Your task to perform on an android device: Search for razer naga on ebay, select the first entry, add it to the cart, then select checkout. Image 0: 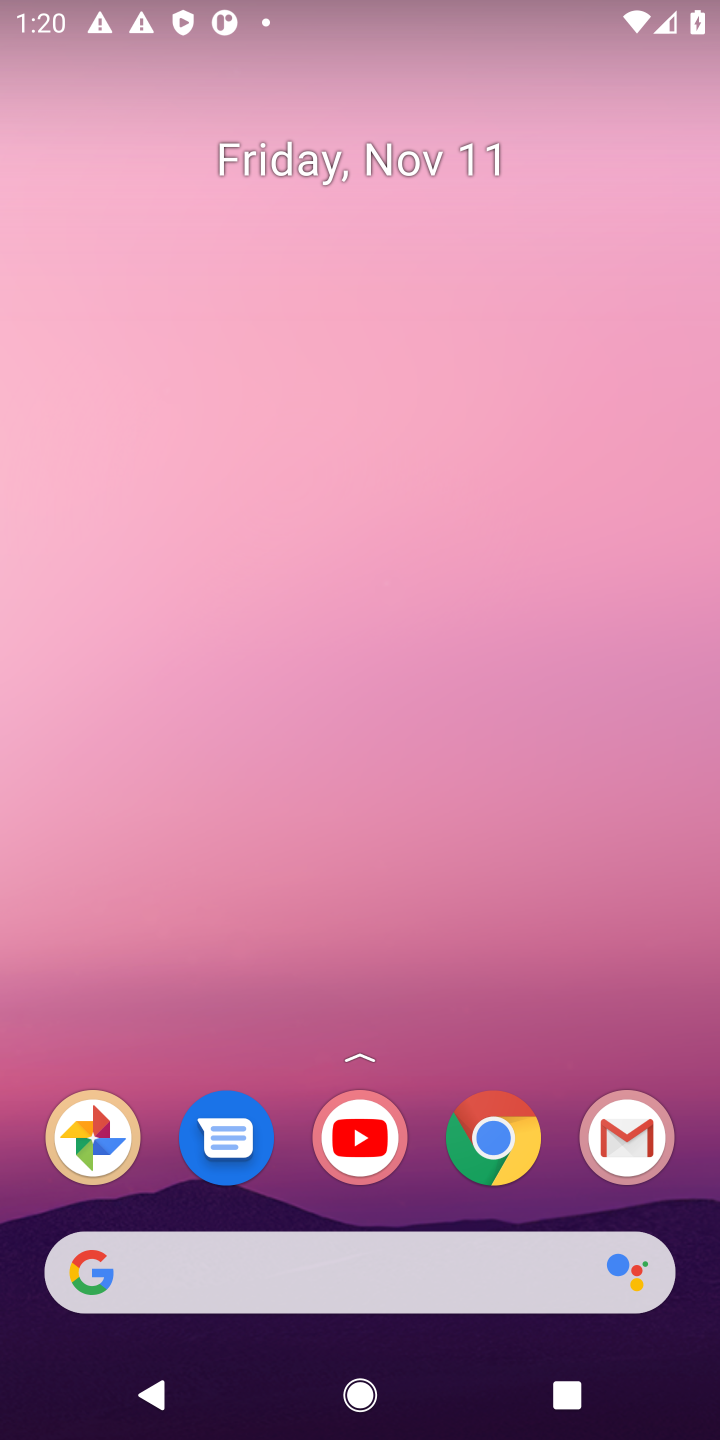
Step 0: click (488, 1116)
Your task to perform on an android device: Search for razer naga on ebay, select the first entry, add it to the cart, then select checkout. Image 1: 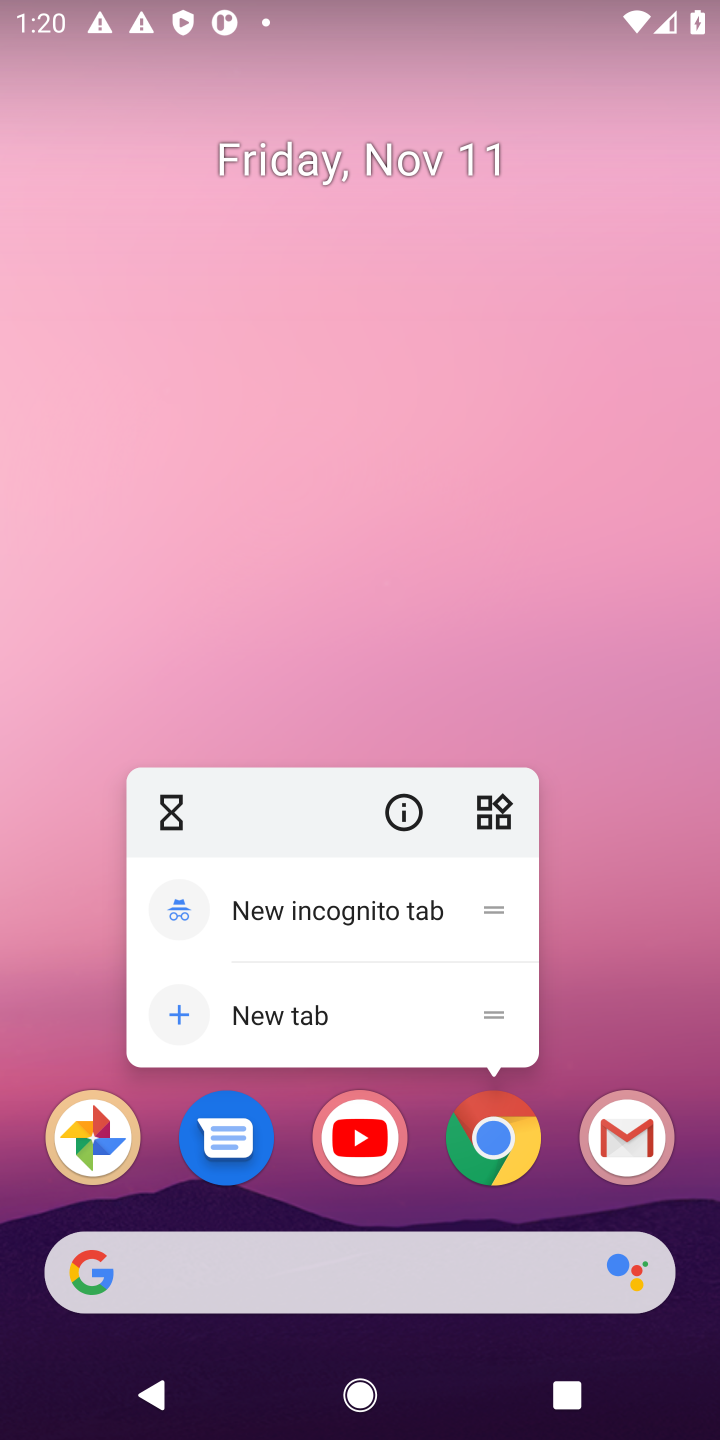
Step 1: click (484, 1144)
Your task to perform on an android device: Search for razer naga on ebay, select the first entry, add it to the cart, then select checkout. Image 2: 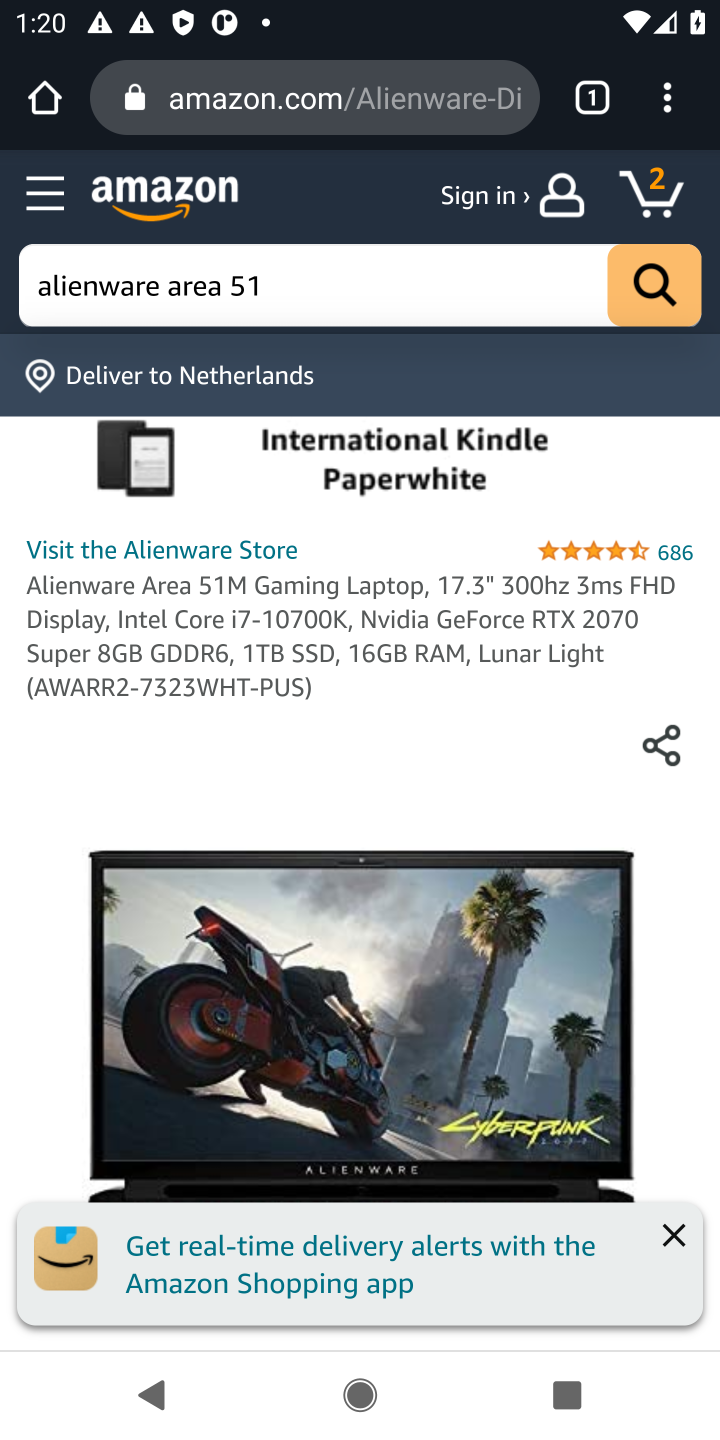
Step 2: click (603, 97)
Your task to perform on an android device: Search for razer naga on ebay, select the first entry, add it to the cart, then select checkout. Image 3: 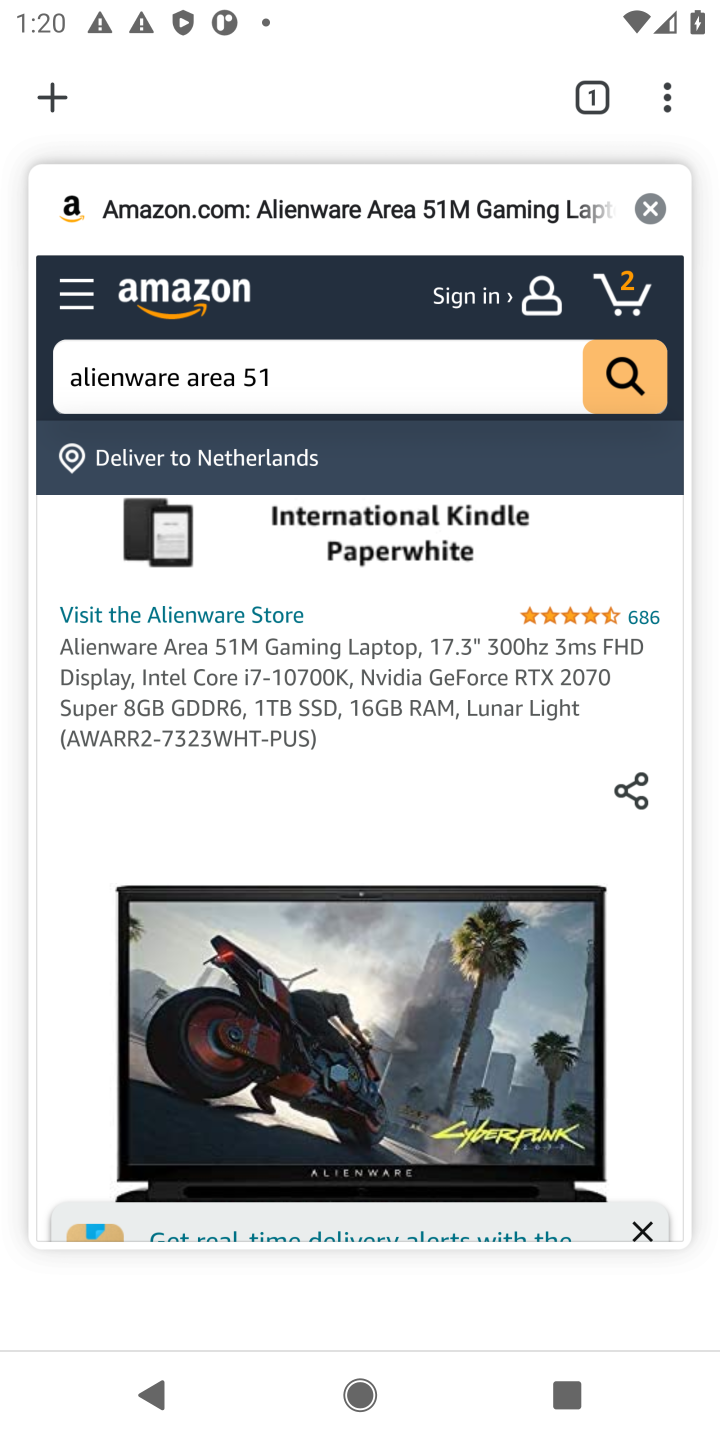
Step 3: click (48, 105)
Your task to perform on an android device: Search for razer naga on ebay, select the first entry, add it to the cart, then select checkout. Image 4: 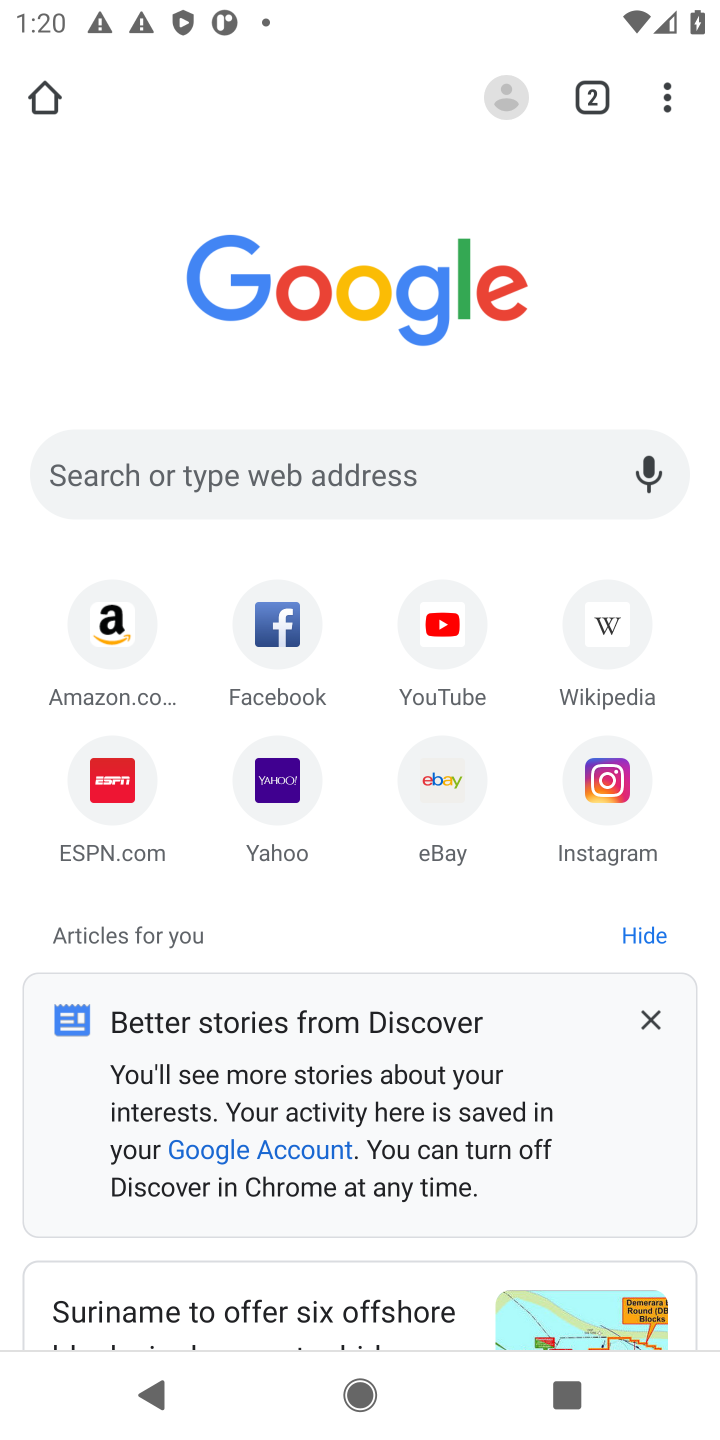
Step 4: click (313, 488)
Your task to perform on an android device: Search for razer naga on ebay, select the first entry, add it to the cart, then select checkout. Image 5: 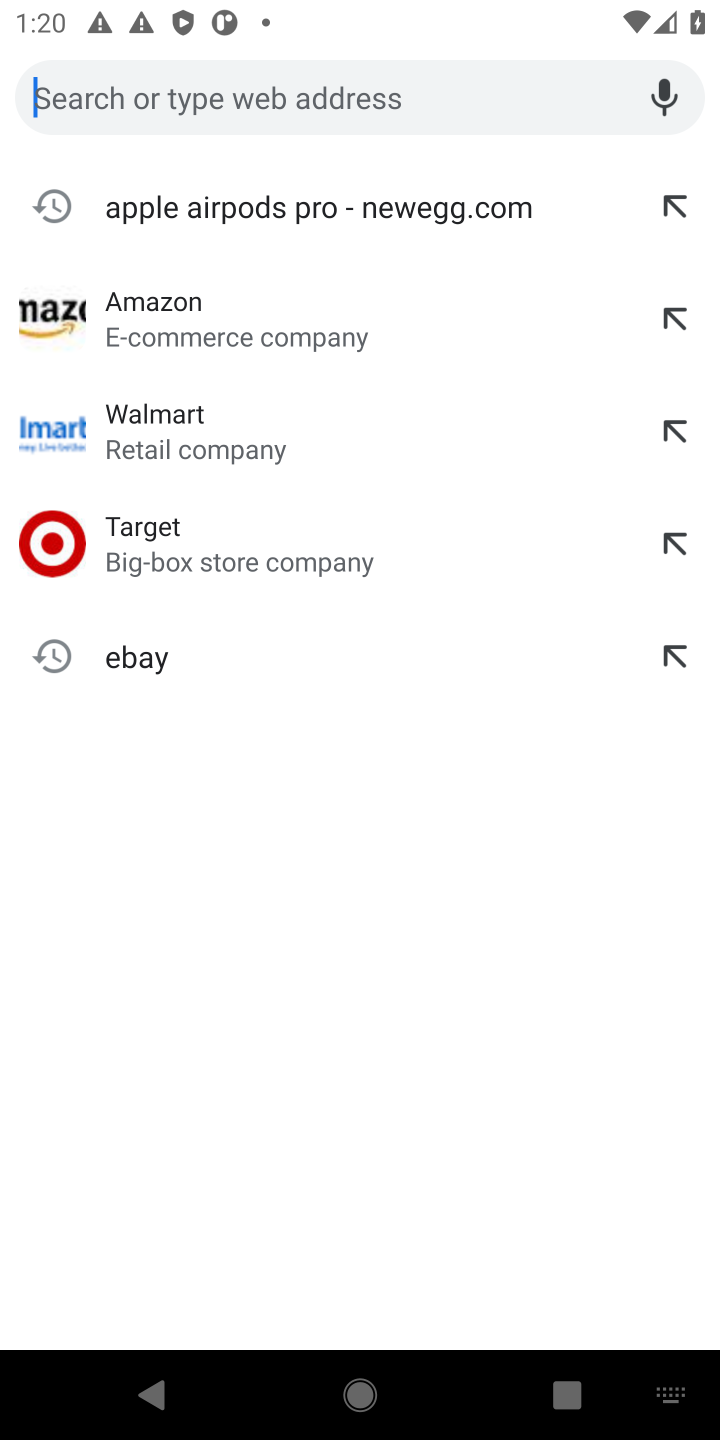
Step 5: type "razer naga on ebay"
Your task to perform on an android device: Search for razer naga on ebay, select the first entry, add it to the cart, then select checkout. Image 6: 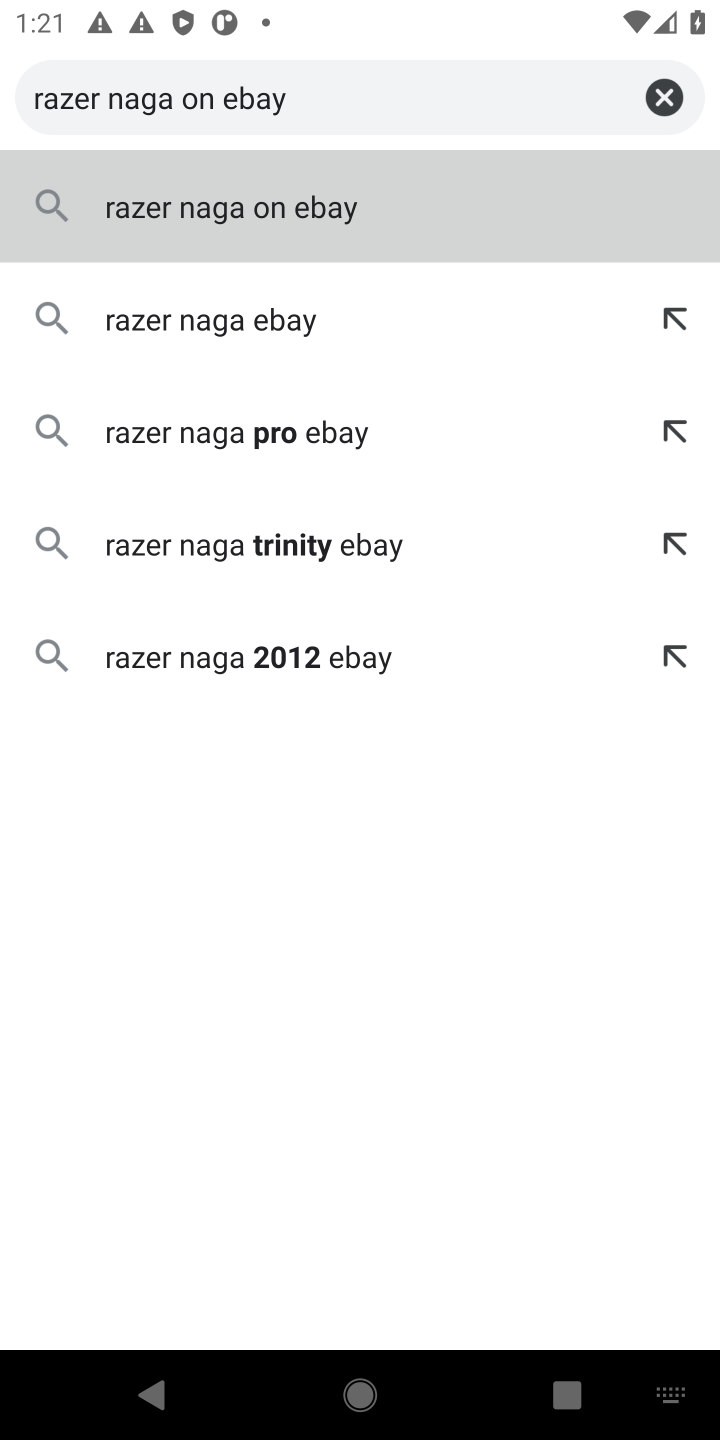
Step 6: click (254, 204)
Your task to perform on an android device: Search for razer naga on ebay, select the first entry, add it to the cart, then select checkout. Image 7: 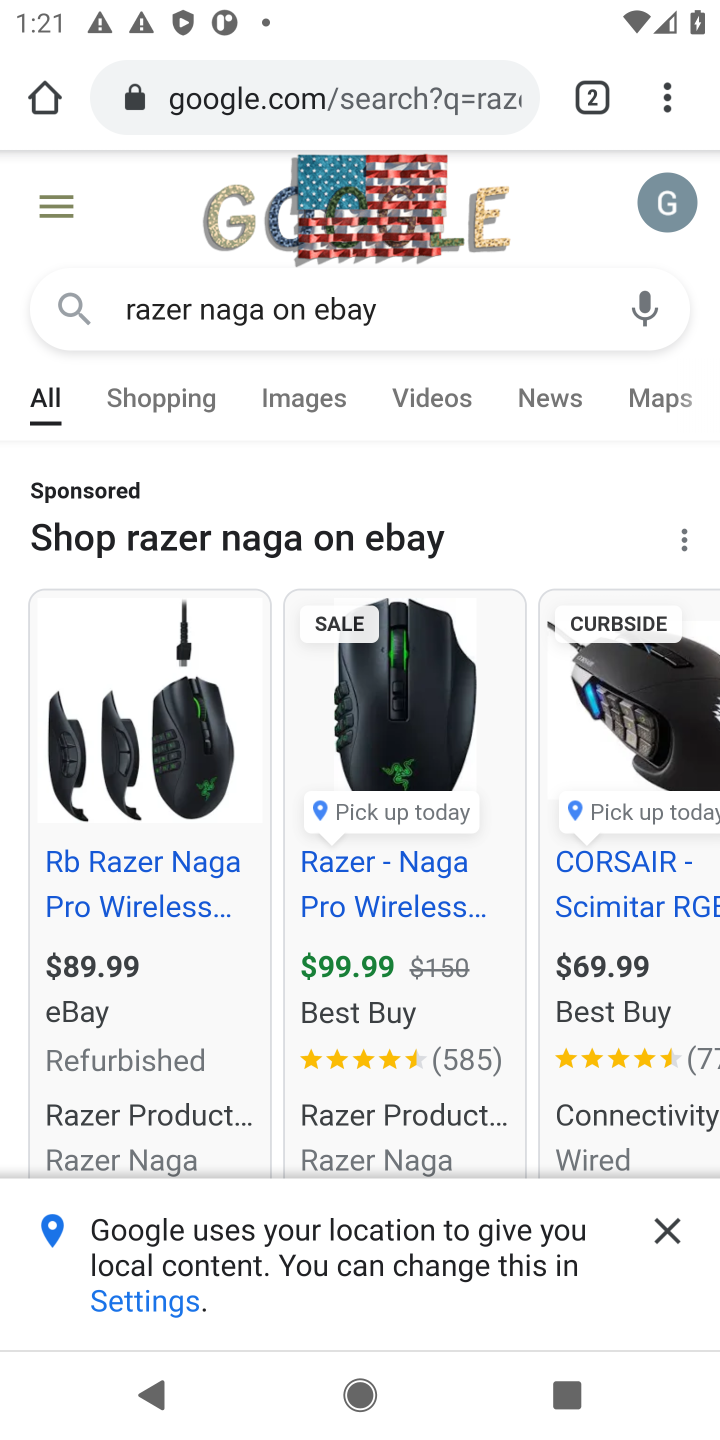
Step 7: click (131, 868)
Your task to perform on an android device: Search for razer naga on ebay, select the first entry, add it to the cart, then select checkout. Image 8: 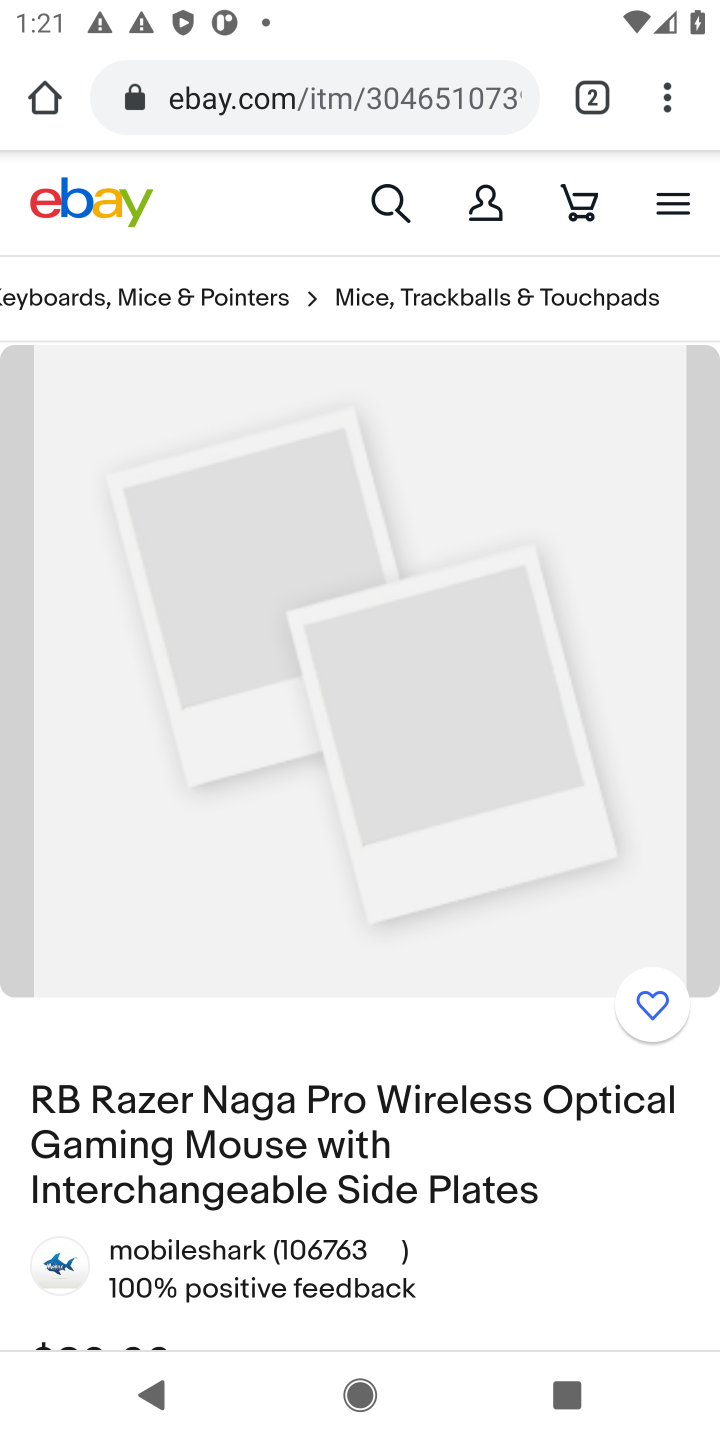
Step 8: drag from (534, 1253) to (538, 236)
Your task to perform on an android device: Search for razer naga on ebay, select the first entry, add it to the cart, then select checkout. Image 9: 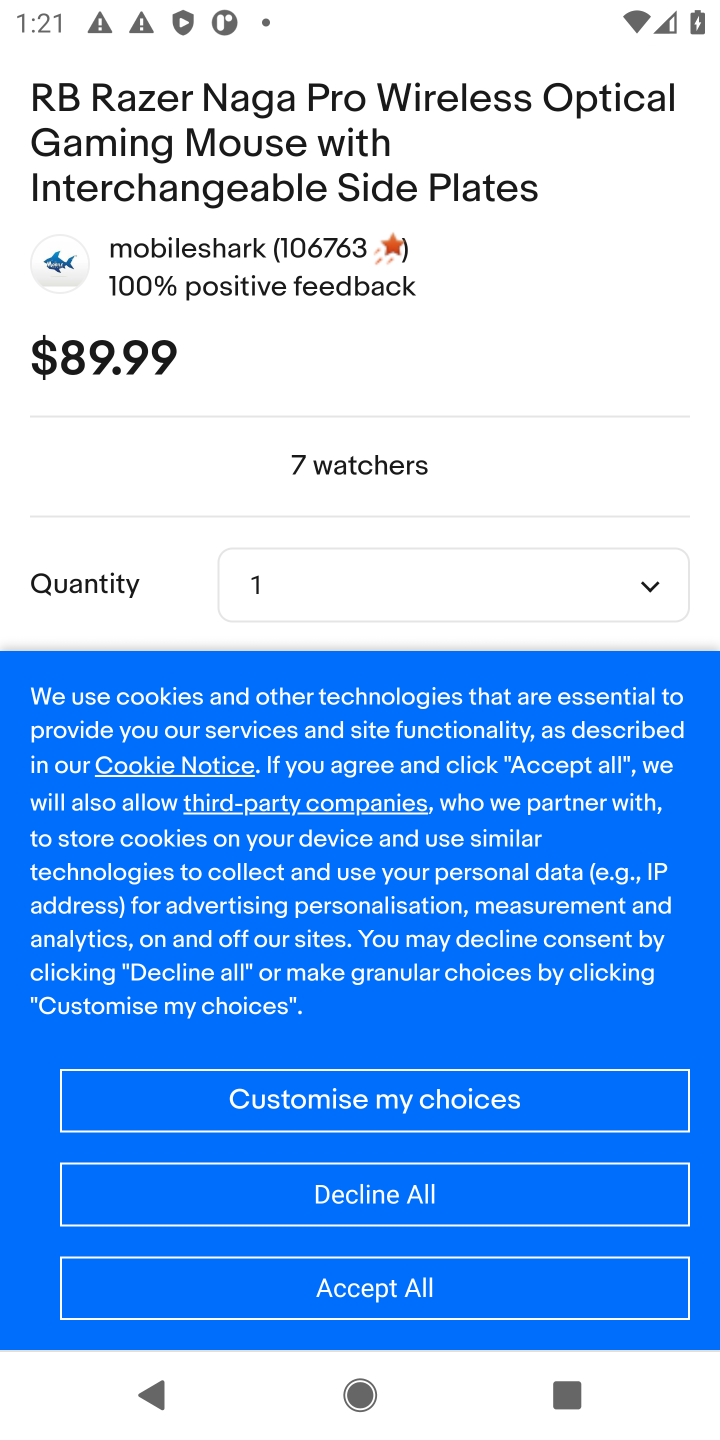
Step 9: click (381, 1193)
Your task to perform on an android device: Search for razer naga on ebay, select the first entry, add it to the cart, then select checkout. Image 10: 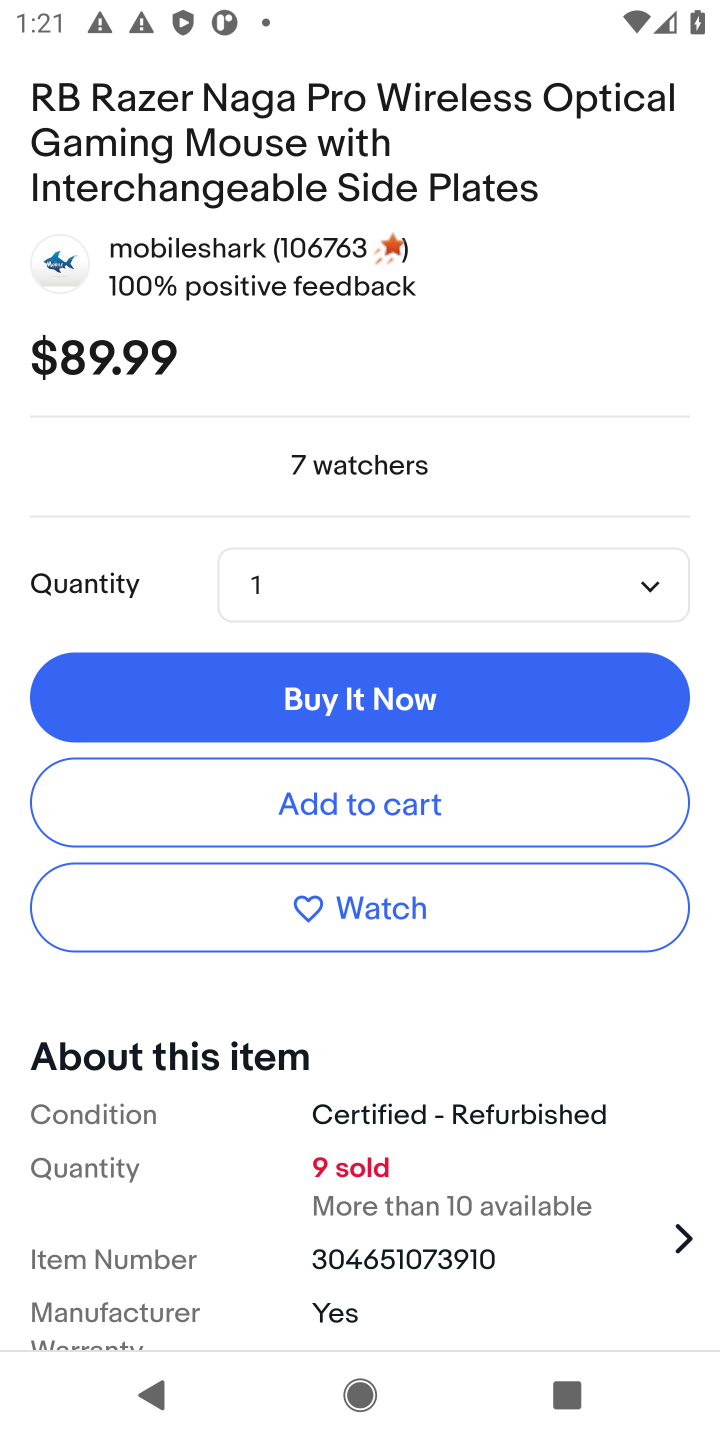
Step 10: click (433, 813)
Your task to perform on an android device: Search for razer naga on ebay, select the first entry, add it to the cart, then select checkout. Image 11: 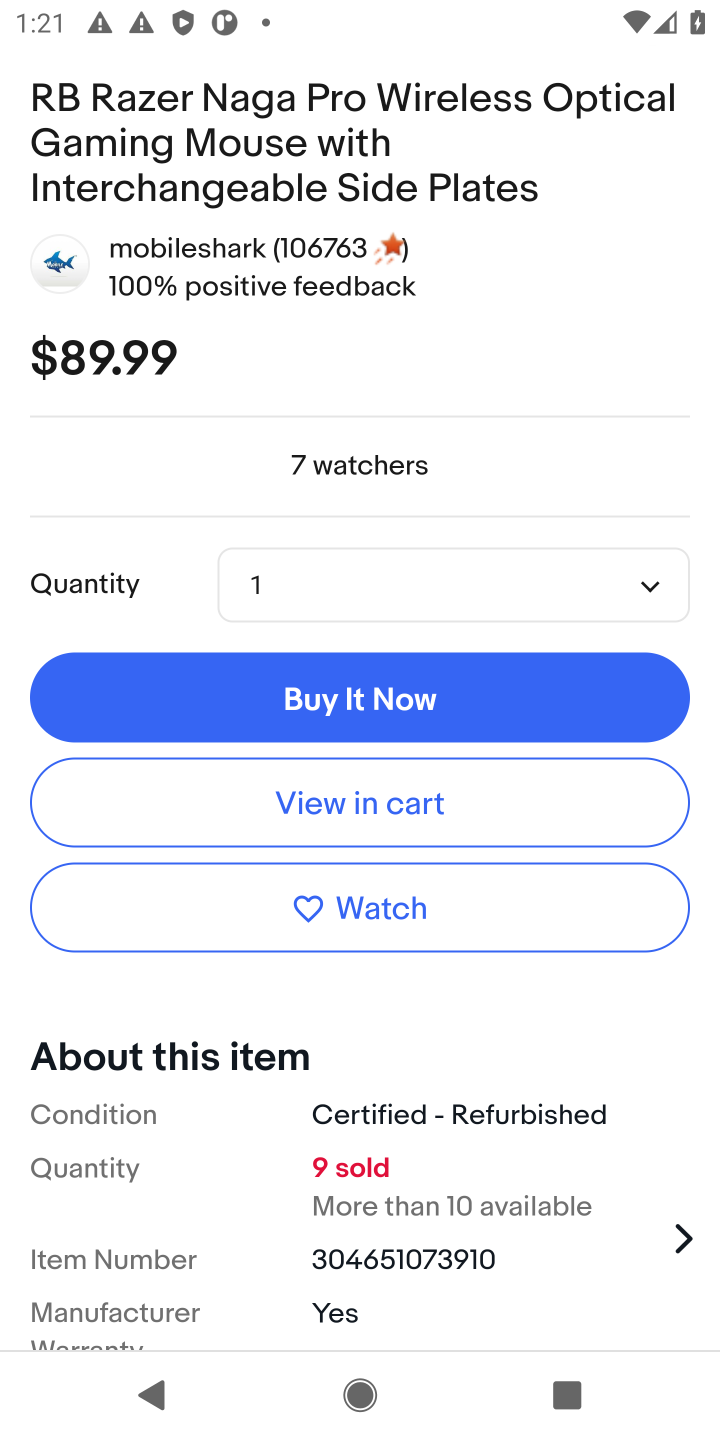
Step 11: task complete